Your task to perform on an android device: turn off javascript in the chrome app Image 0: 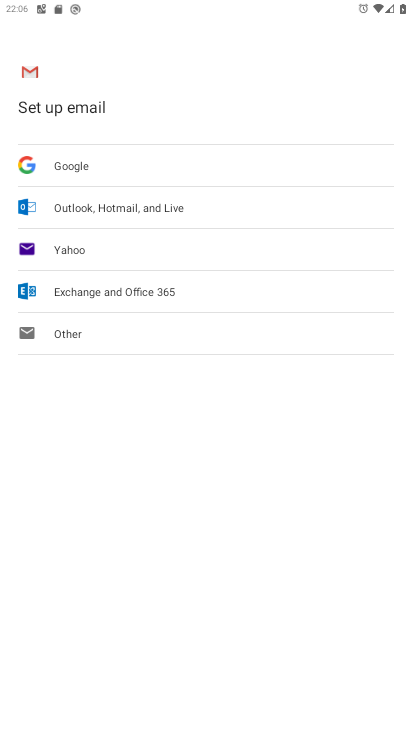
Step 0: press home button
Your task to perform on an android device: turn off javascript in the chrome app Image 1: 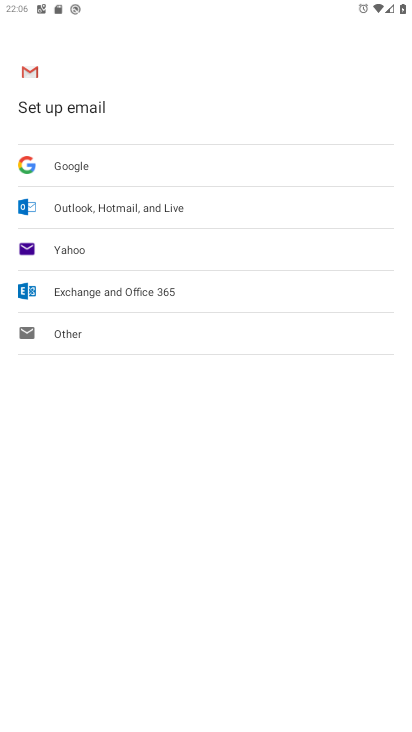
Step 1: press home button
Your task to perform on an android device: turn off javascript in the chrome app Image 2: 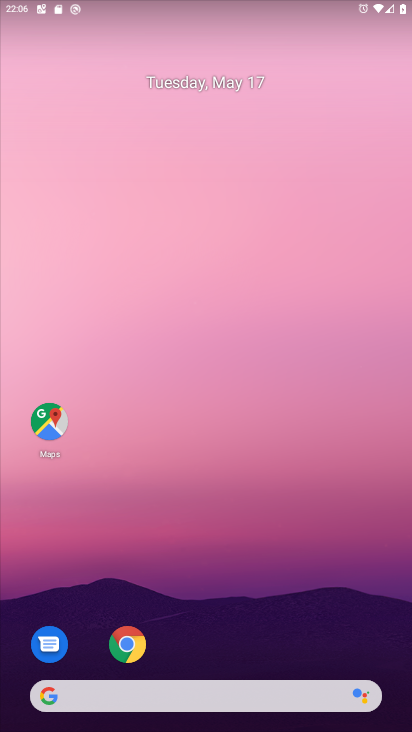
Step 2: click (129, 639)
Your task to perform on an android device: turn off javascript in the chrome app Image 3: 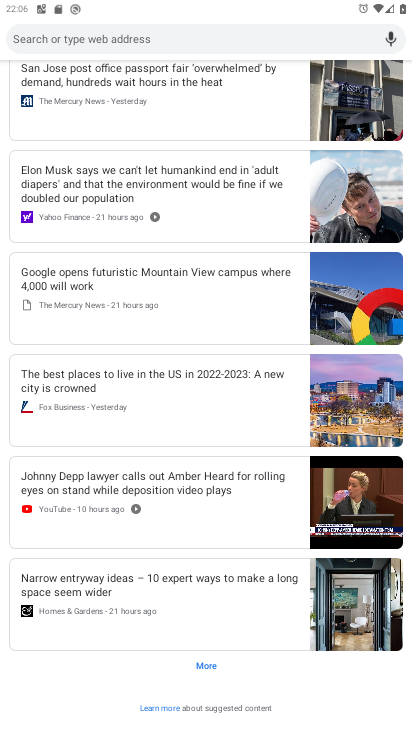
Step 3: drag from (195, 124) to (211, 707)
Your task to perform on an android device: turn off javascript in the chrome app Image 4: 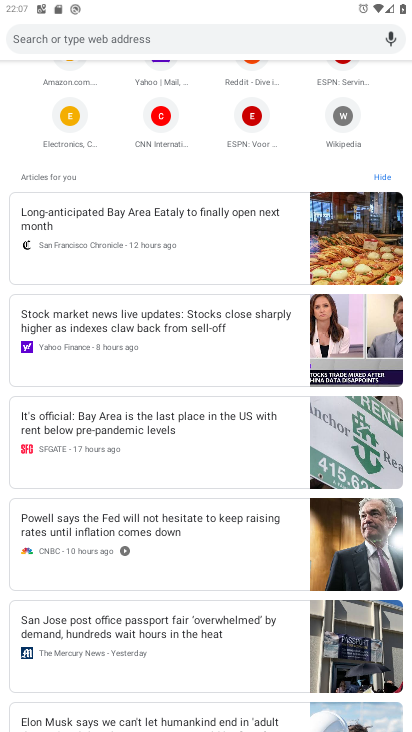
Step 4: drag from (244, 128) to (235, 628)
Your task to perform on an android device: turn off javascript in the chrome app Image 5: 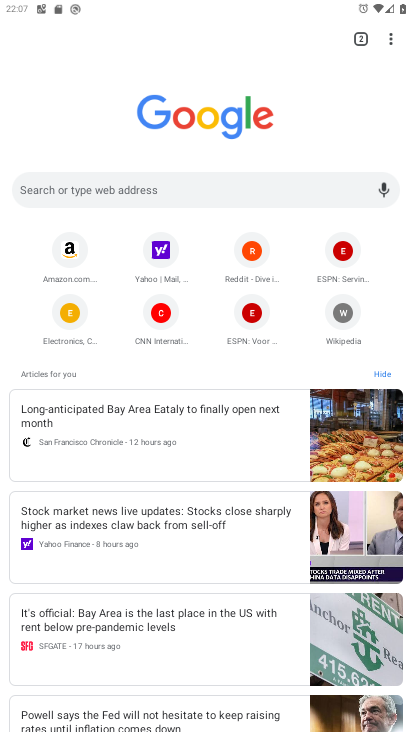
Step 5: click (385, 32)
Your task to perform on an android device: turn off javascript in the chrome app Image 6: 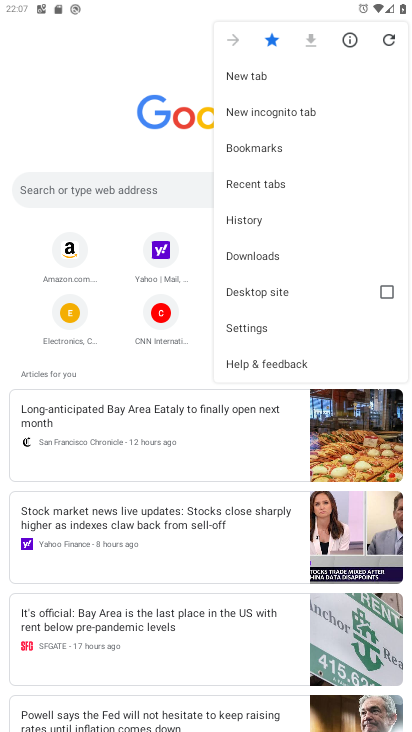
Step 6: click (271, 326)
Your task to perform on an android device: turn off javascript in the chrome app Image 7: 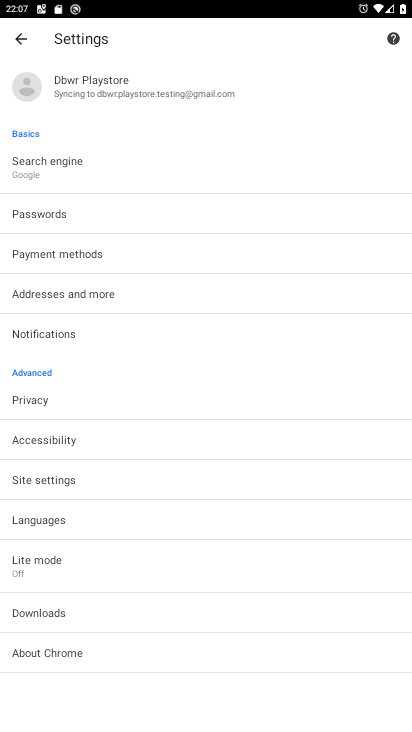
Step 7: click (90, 470)
Your task to perform on an android device: turn off javascript in the chrome app Image 8: 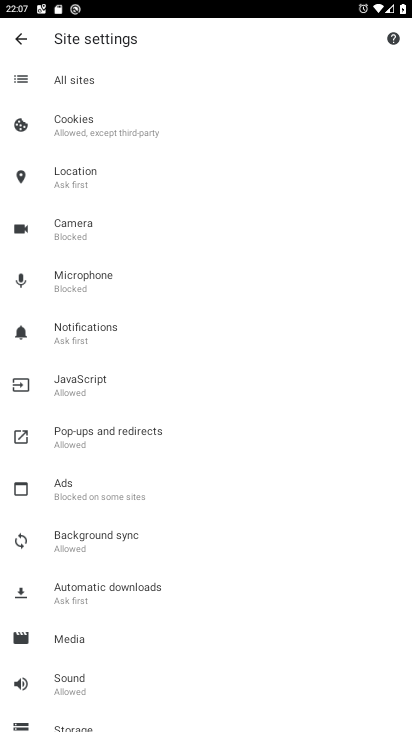
Step 8: click (85, 388)
Your task to perform on an android device: turn off javascript in the chrome app Image 9: 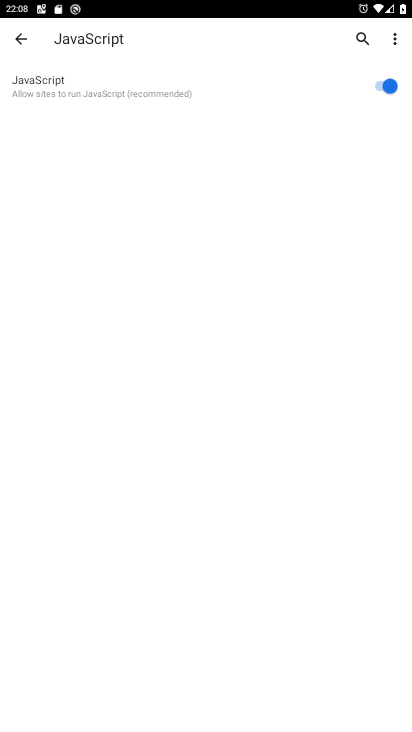
Step 9: click (381, 79)
Your task to perform on an android device: turn off javascript in the chrome app Image 10: 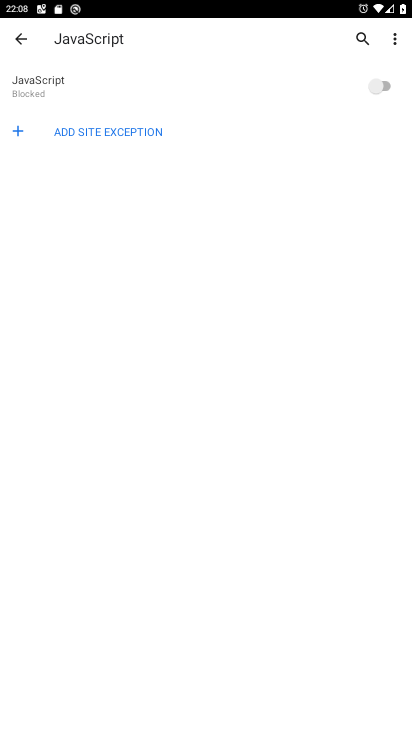
Step 10: task complete